Your task to perform on an android device: Open maps Image 0: 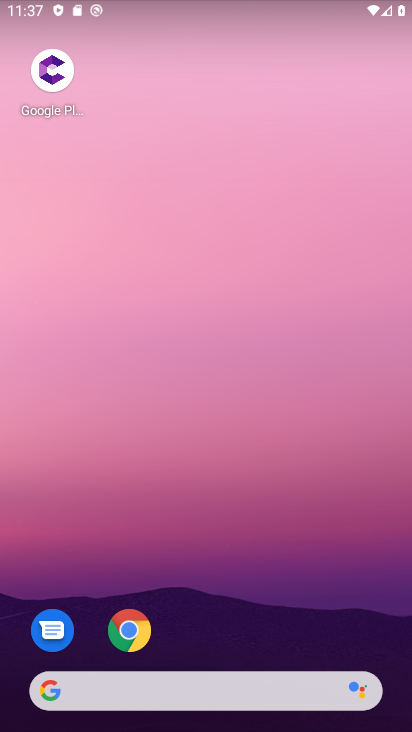
Step 0: drag from (243, 651) to (205, 160)
Your task to perform on an android device: Open maps Image 1: 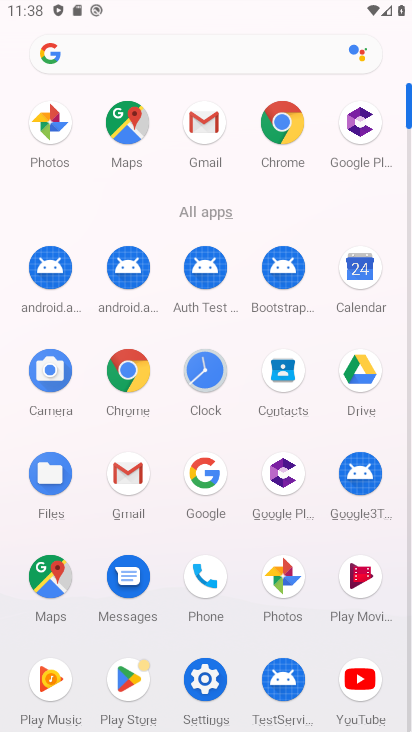
Step 1: click (118, 136)
Your task to perform on an android device: Open maps Image 2: 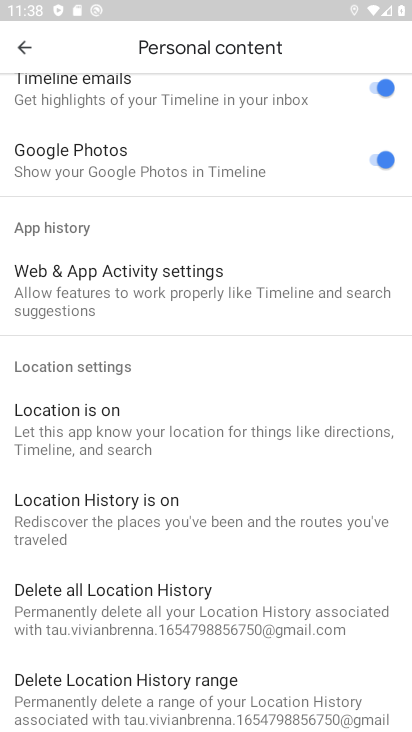
Step 2: click (26, 51)
Your task to perform on an android device: Open maps Image 3: 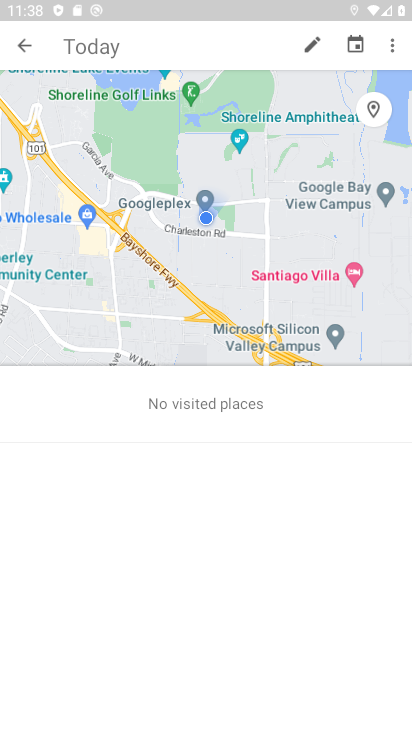
Step 3: task complete